Your task to perform on an android device: toggle sleep mode Image 0: 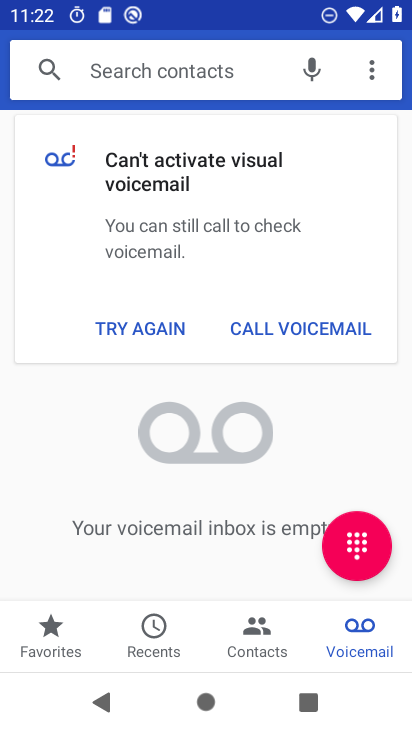
Step 0: press home button
Your task to perform on an android device: toggle sleep mode Image 1: 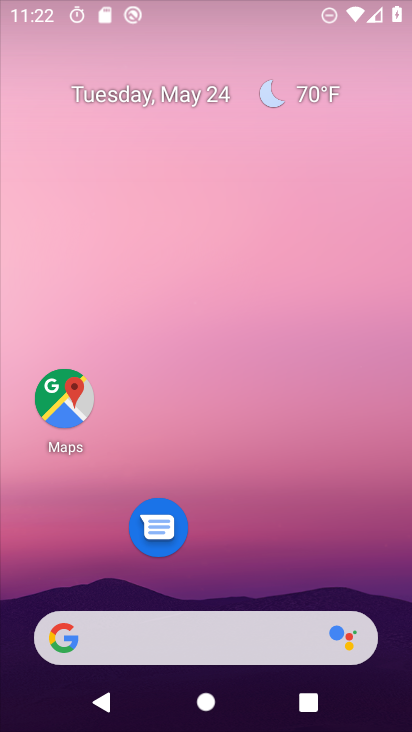
Step 1: drag from (237, 549) to (258, 112)
Your task to perform on an android device: toggle sleep mode Image 2: 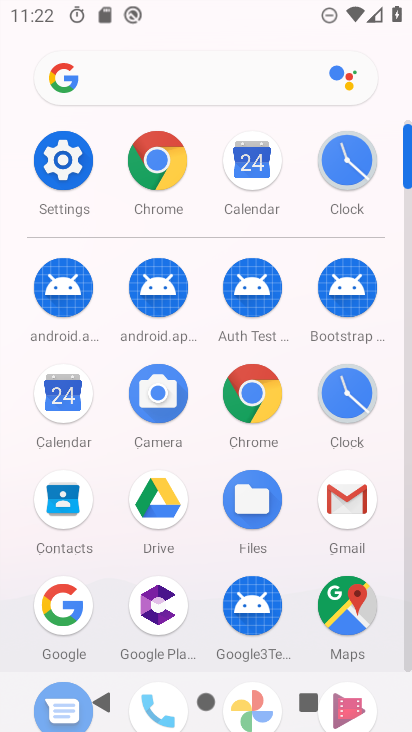
Step 2: click (64, 161)
Your task to perform on an android device: toggle sleep mode Image 3: 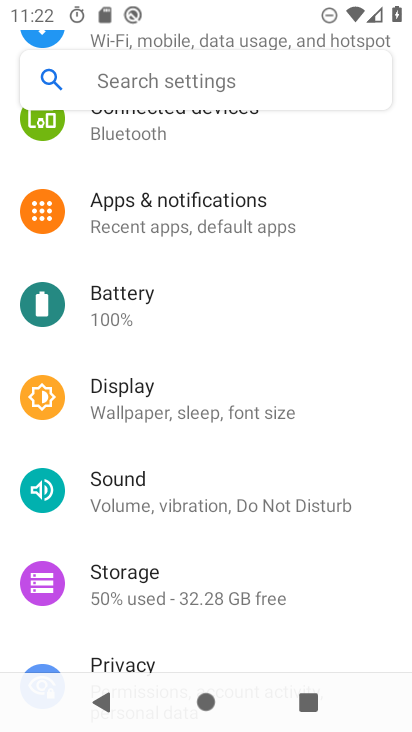
Step 3: click (168, 393)
Your task to perform on an android device: toggle sleep mode Image 4: 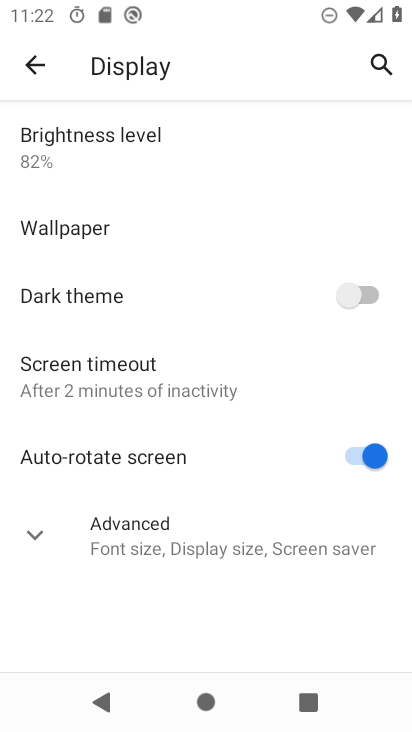
Step 4: click (189, 381)
Your task to perform on an android device: toggle sleep mode Image 5: 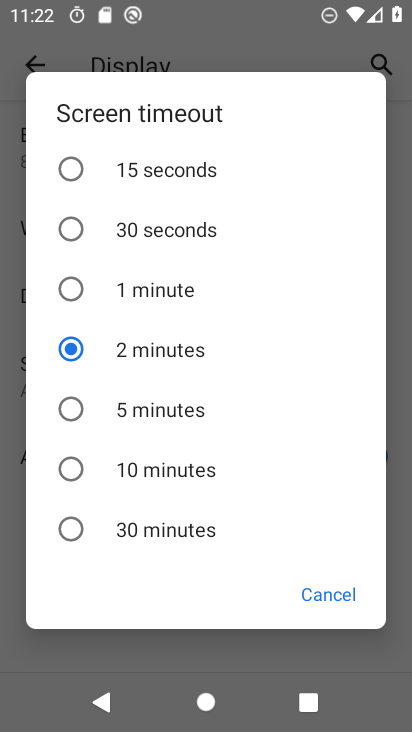
Step 5: click (71, 410)
Your task to perform on an android device: toggle sleep mode Image 6: 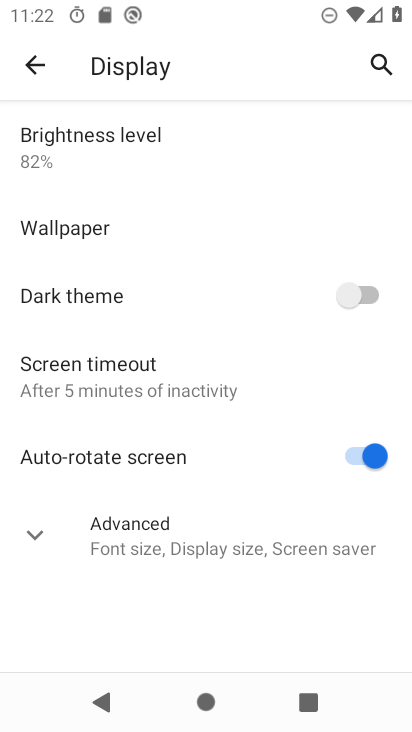
Step 6: task complete